Your task to perform on an android device: open the mobile data screen to see how much data has been used Image 0: 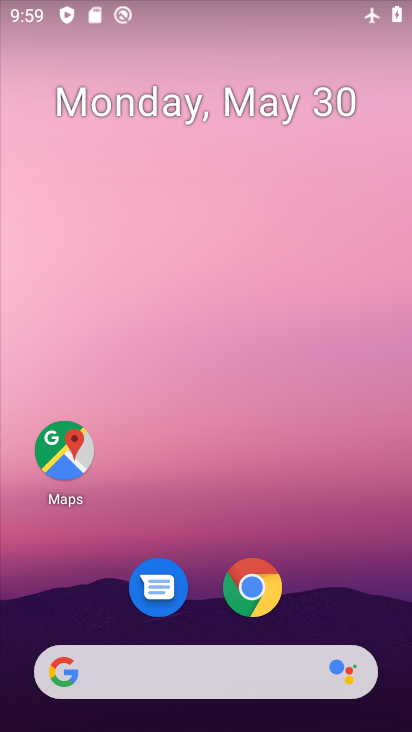
Step 0: drag from (330, 535) to (242, 9)
Your task to perform on an android device: open the mobile data screen to see how much data has been used Image 1: 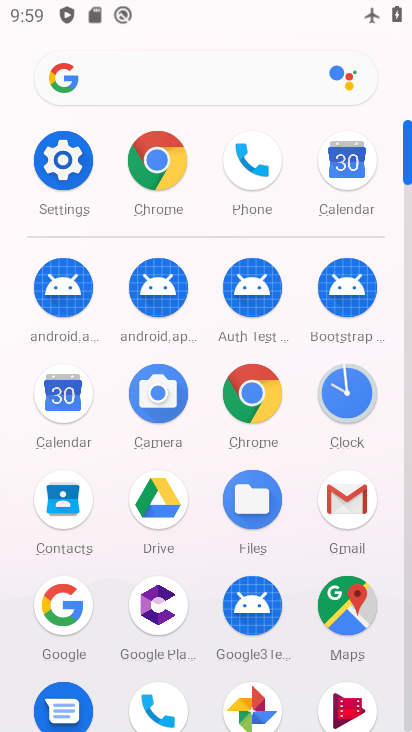
Step 1: drag from (11, 625) to (11, 379)
Your task to perform on an android device: open the mobile data screen to see how much data has been used Image 2: 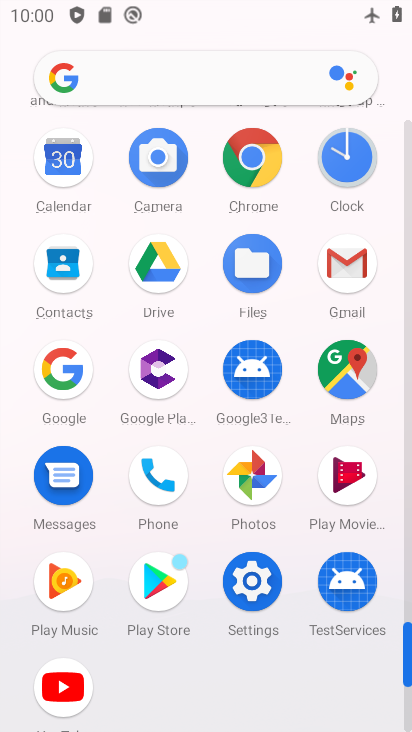
Step 2: click (248, 581)
Your task to perform on an android device: open the mobile data screen to see how much data has been used Image 3: 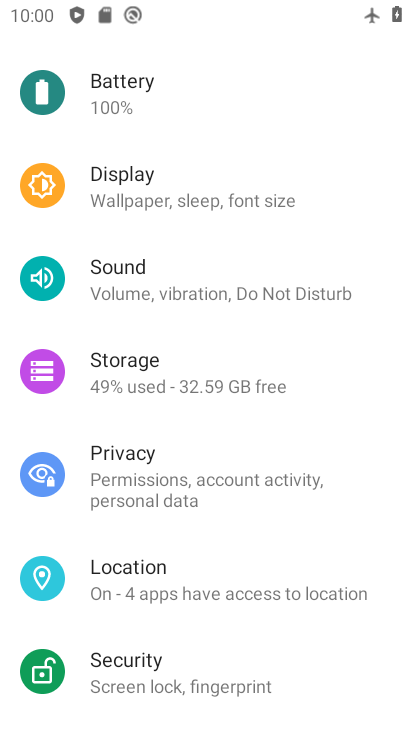
Step 3: drag from (242, 148) to (250, 564)
Your task to perform on an android device: open the mobile data screen to see how much data has been used Image 4: 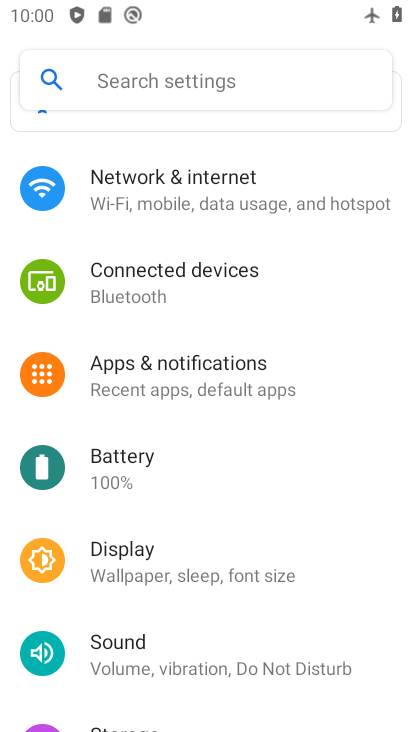
Step 4: click (263, 187)
Your task to perform on an android device: open the mobile data screen to see how much data has been used Image 5: 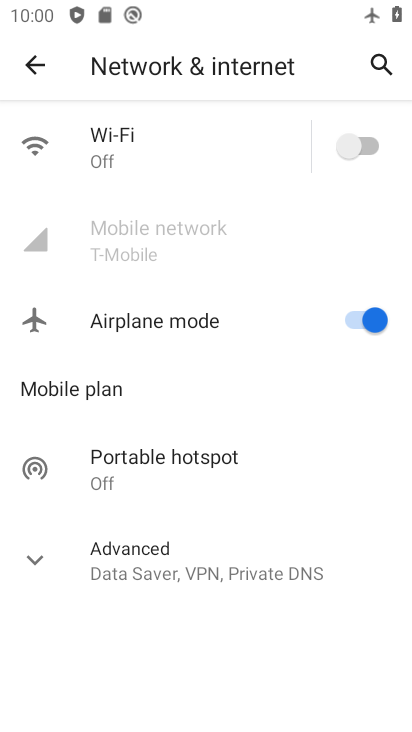
Step 5: click (35, 556)
Your task to perform on an android device: open the mobile data screen to see how much data has been used Image 6: 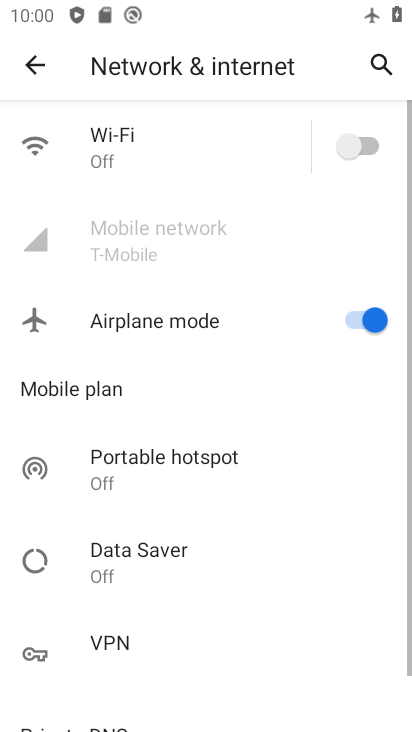
Step 6: task complete